Your task to perform on an android device: snooze an email in the gmail app Image 0: 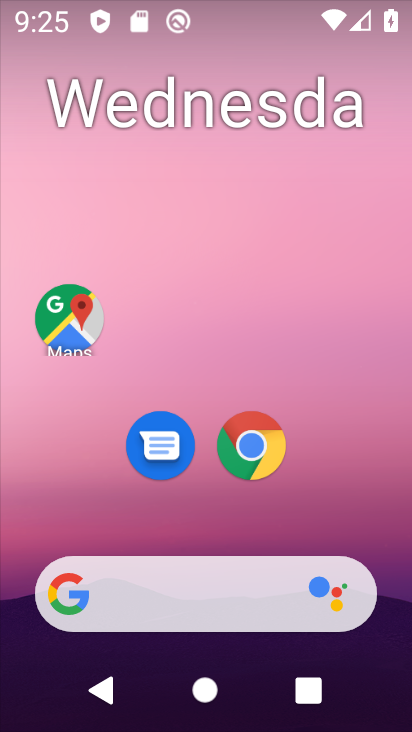
Step 0: press back button
Your task to perform on an android device: snooze an email in the gmail app Image 1: 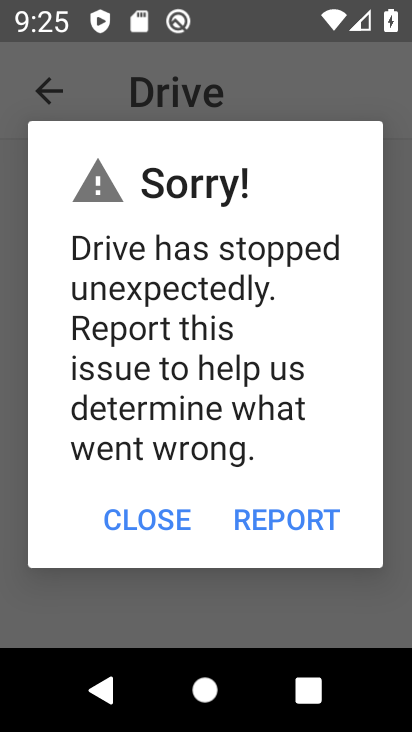
Step 1: press back button
Your task to perform on an android device: snooze an email in the gmail app Image 2: 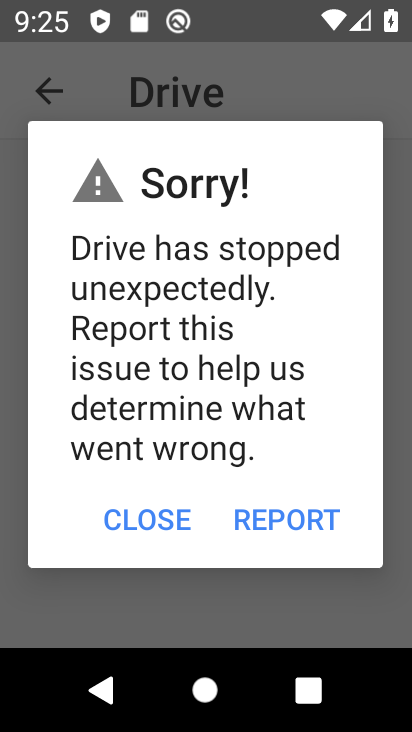
Step 2: press home button
Your task to perform on an android device: snooze an email in the gmail app Image 3: 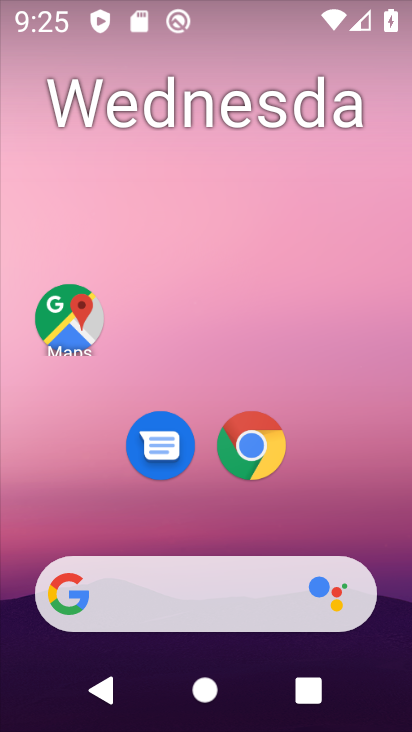
Step 3: drag from (172, 544) to (243, 6)
Your task to perform on an android device: snooze an email in the gmail app Image 4: 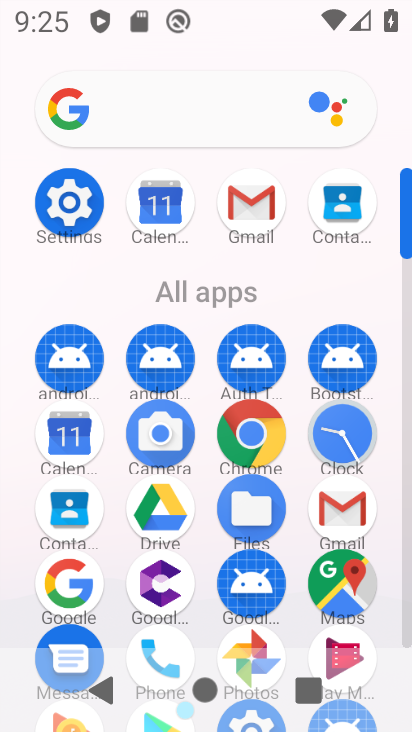
Step 4: click (252, 191)
Your task to perform on an android device: snooze an email in the gmail app Image 5: 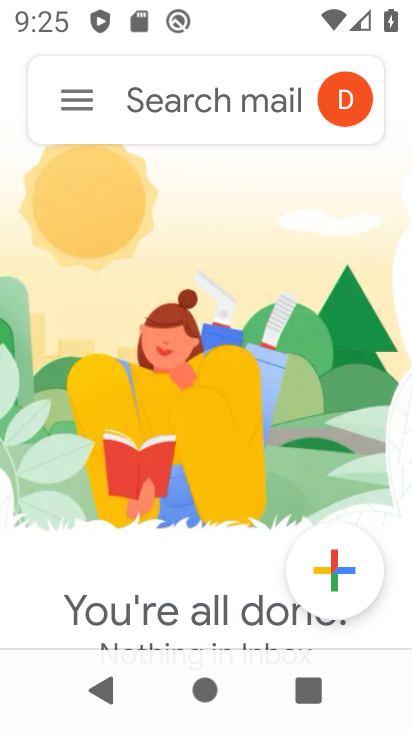
Step 5: click (66, 96)
Your task to perform on an android device: snooze an email in the gmail app Image 6: 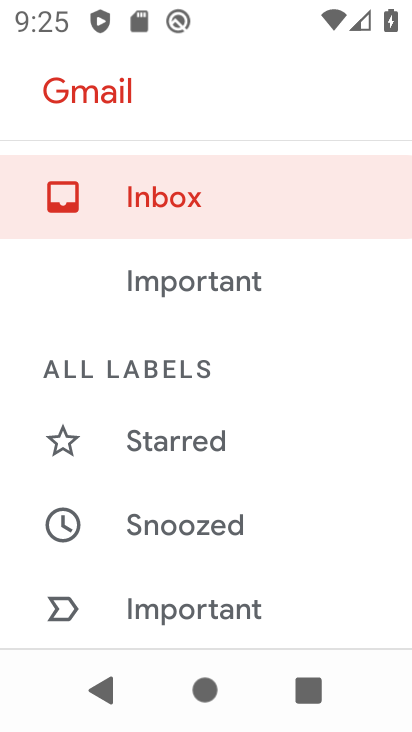
Step 6: drag from (212, 548) to (264, 177)
Your task to perform on an android device: snooze an email in the gmail app Image 7: 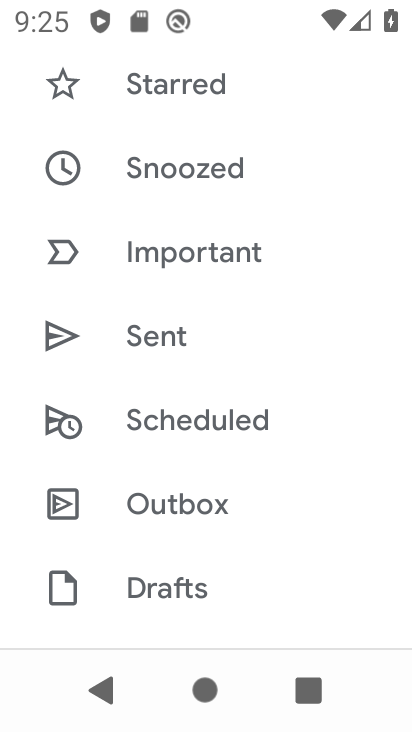
Step 7: drag from (186, 583) to (228, 200)
Your task to perform on an android device: snooze an email in the gmail app Image 8: 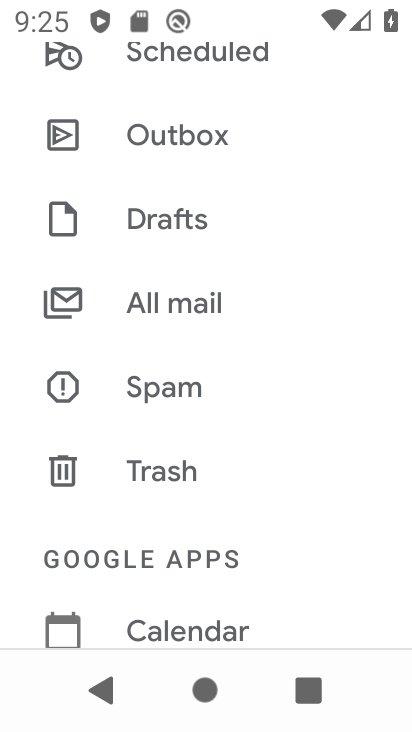
Step 8: click (178, 311)
Your task to perform on an android device: snooze an email in the gmail app Image 9: 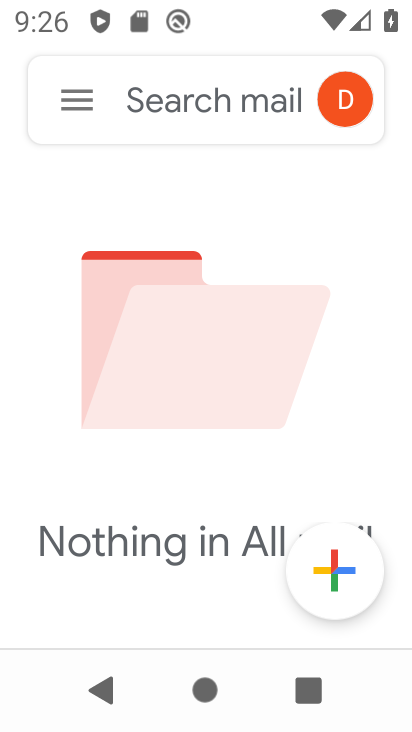
Step 9: task complete